Your task to perform on an android device: turn on translation in the chrome app Image 0: 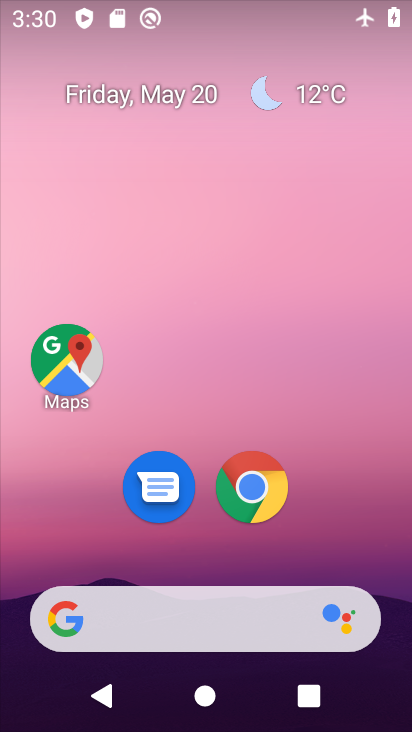
Step 0: click (250, 497)
Your task to perform on an android device: turn on translation in the chrome app Image 1: 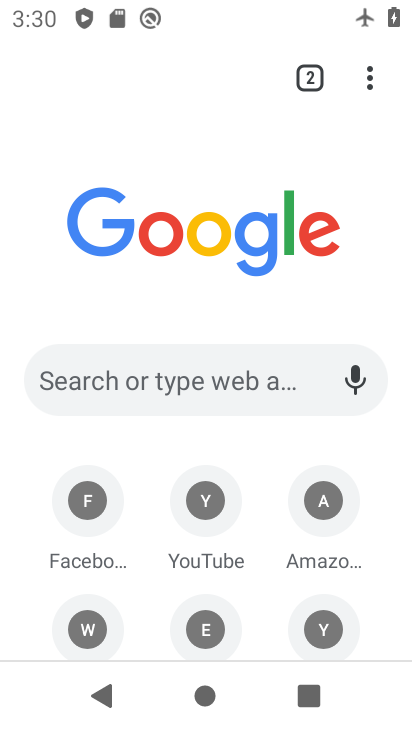
Step 1: click (362, 80)
Your task to perform on an android device: turn on translation in the chrome app Image 2: 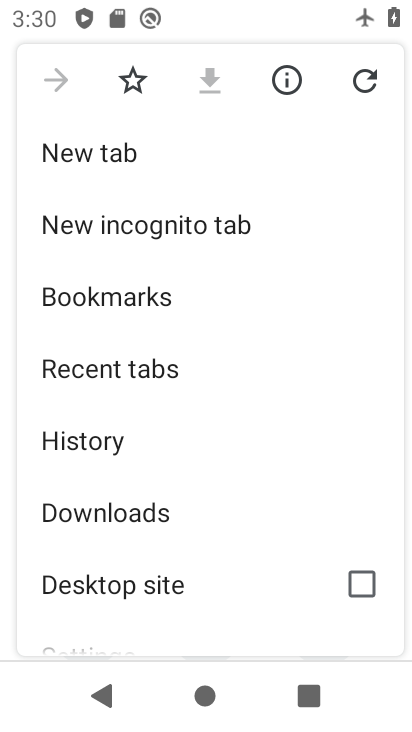
Step 2: drag from (137, 544) to (146, 273)
Your task to perform on an android device: turn on translation in the chrome app Image 3: 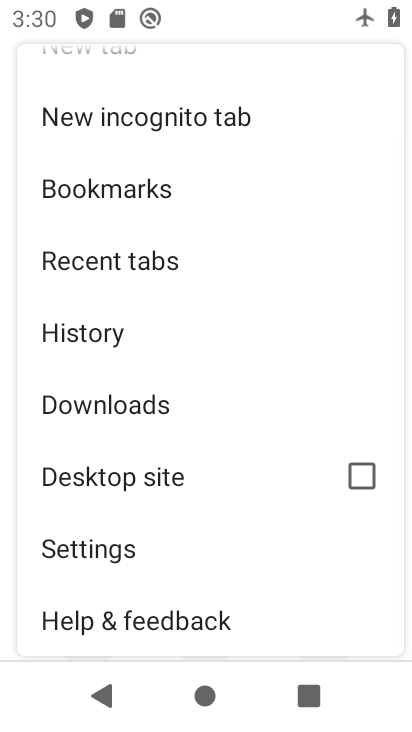
Step 3: click (108, 560)
Your task to perform on an android device: turn on translation in the chrome app Image 4: 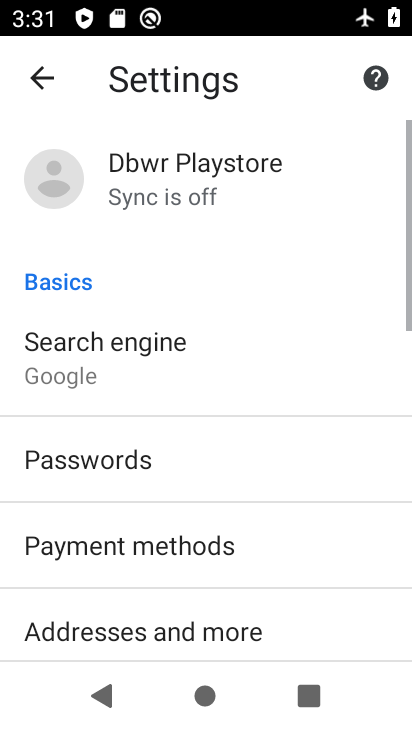
Step 4: drag from (147, 600) to (196, 335)
Your task to perform on an android device: turn on translation in the chrome app Image 5: 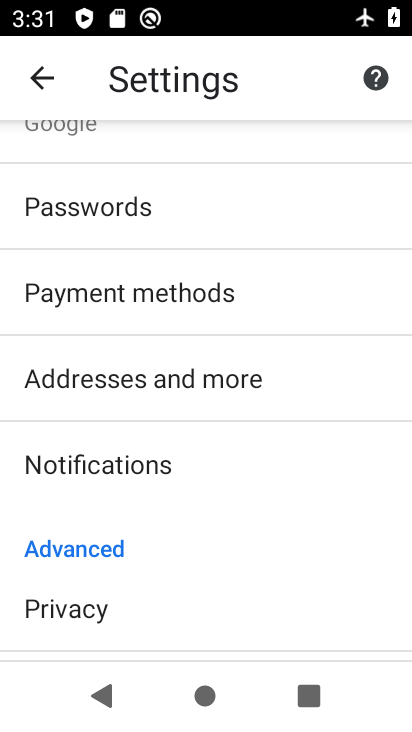
Step 5: drag from (162, 415) to (185, 283)
Your task to perform on an android device: turn on translation in the chrome app Image 6: 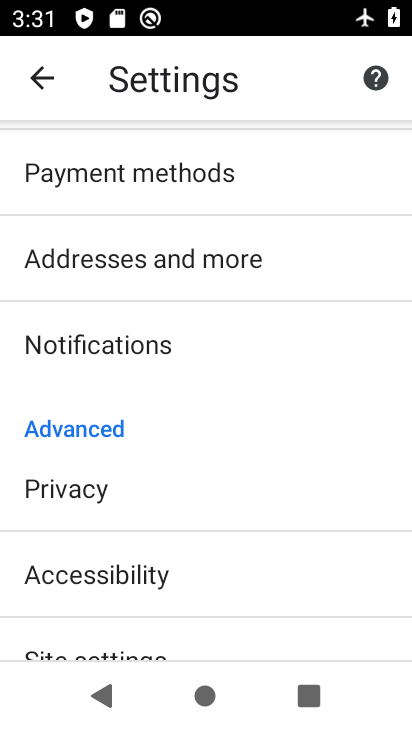
Step 6: drag from (131, 606) to (195, 308)
Your task to perform on an android device: turn on translation in the chrome app Image 7: 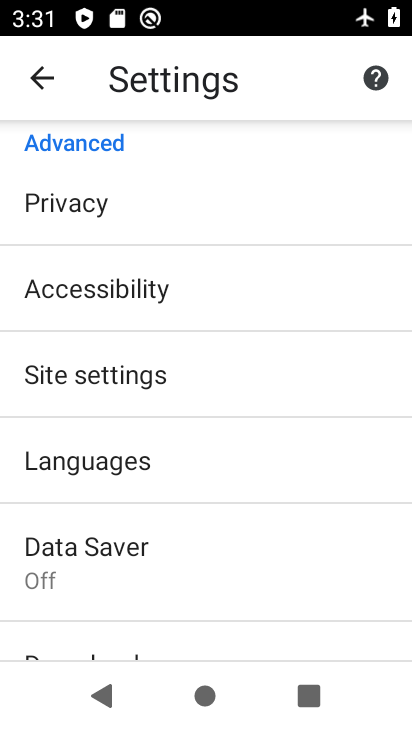
Step 7: drag from (174, 574) to (223, 267)
Your task to perform on an android device: turn on translation in the chrome app Image 8: 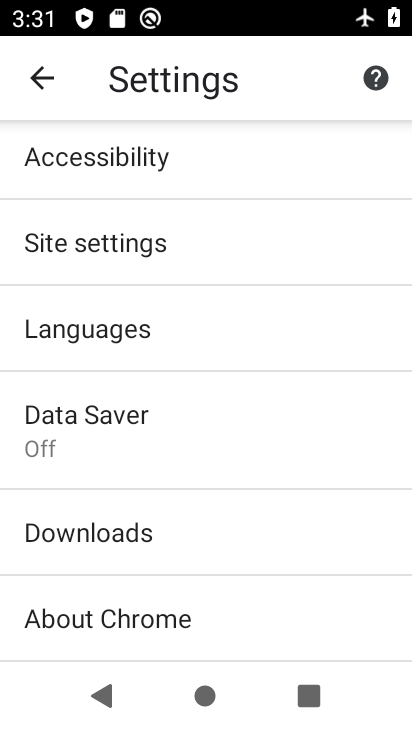
Step 8: click (146, 330)
Your task to perform on an android device: turn on translation in the chrome app Image 9: 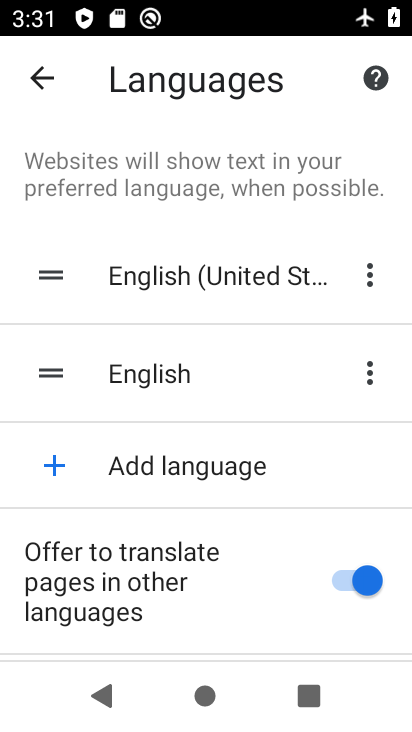
Step 9: task complete